Your task to perform on an android device: Open battery settings Image 0: 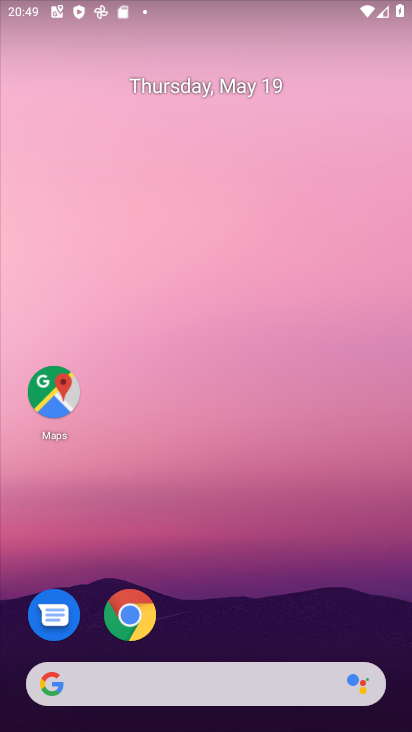
Step 0: drag from (231, 605) to (265, 11)
Your task to perform on an android device: Open battery settings Image 1: 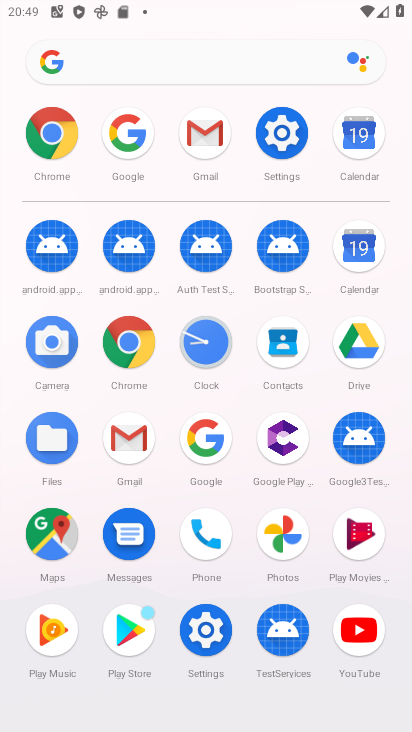
Step 1: click (281, 127)
Your task to perform on an android device: Open battery settings Image 2: 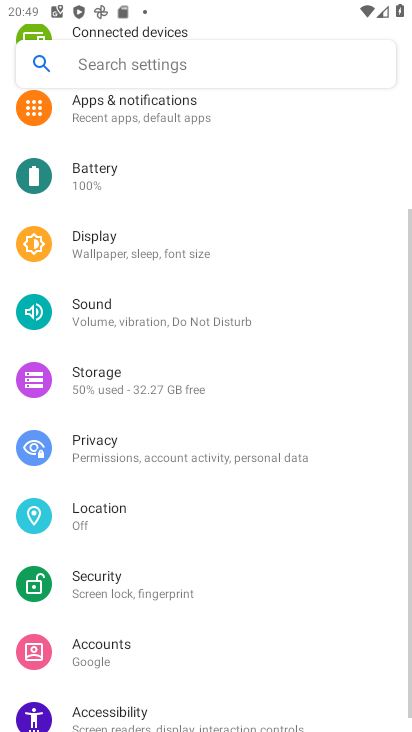
Step 2: click (85, 182)
Your task to perform on an android device: Open battery settings Image 3: 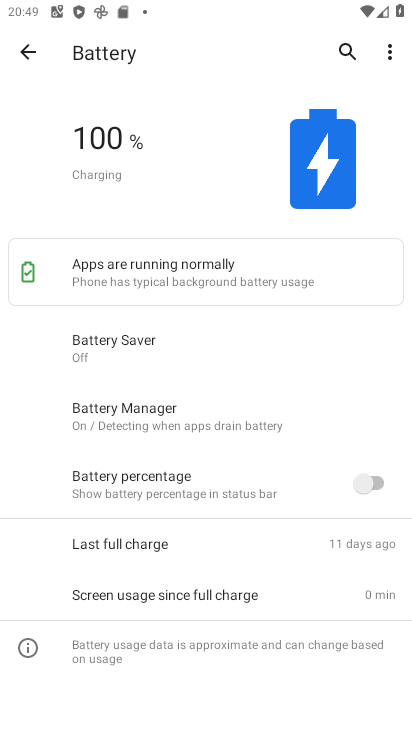
Step 3: task complete